Your task to perform on an android device: clear history in the chrome app Image 0: 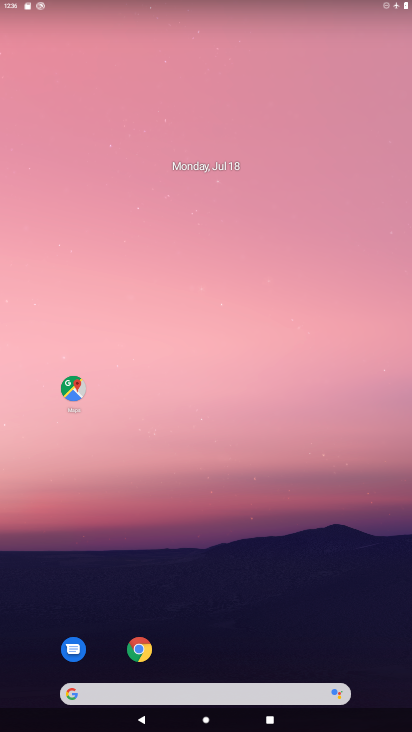
Step 0: click (125, 651)
Your task to perform on an android device: clear history in the chrome app Image 1: 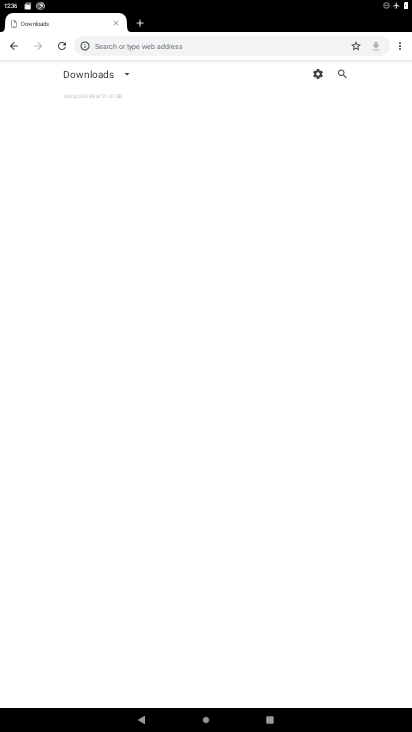
Step 1: click (396, 56)
Your task to perform on an android device: clear history in the chrome app Image 2: 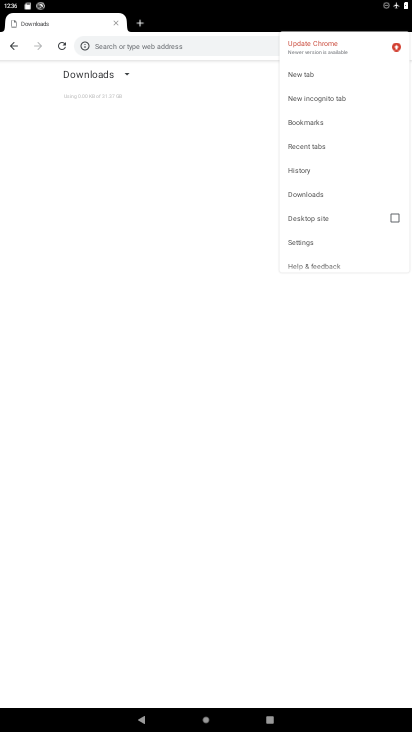
Step 2: click (306, 177)
Your task to perform on an android device: clear history in the chrome app Image 3: 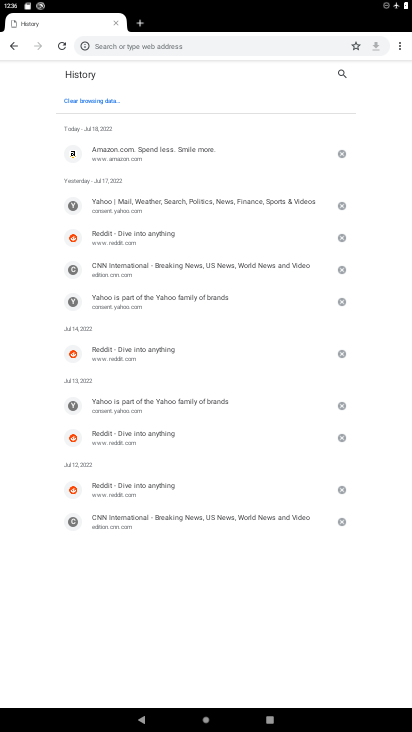
Step 3: click (109, 96)
Your task to perform on an android device: clear history in the chrome app Image 4: 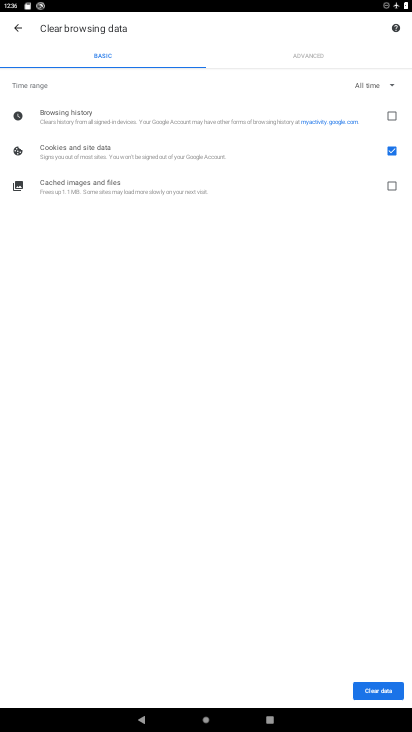
Step 4: click (394, 116)
Your task to perform on an android device: clear history in the chrome app Image 5: 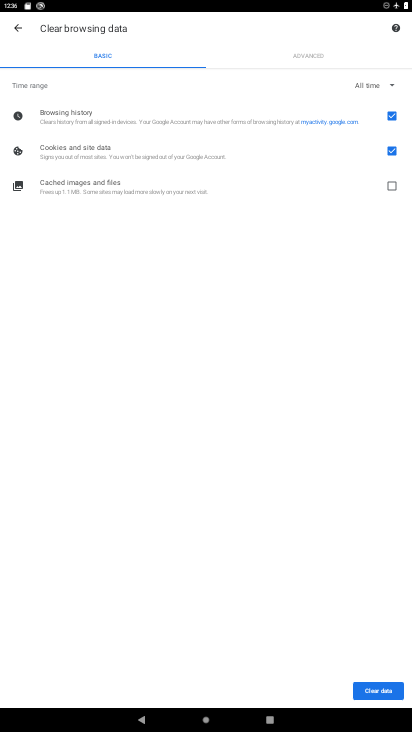
Step 5: click (392, 147)
Your task to perform on an android device: clear history in the chrome app Image 6: 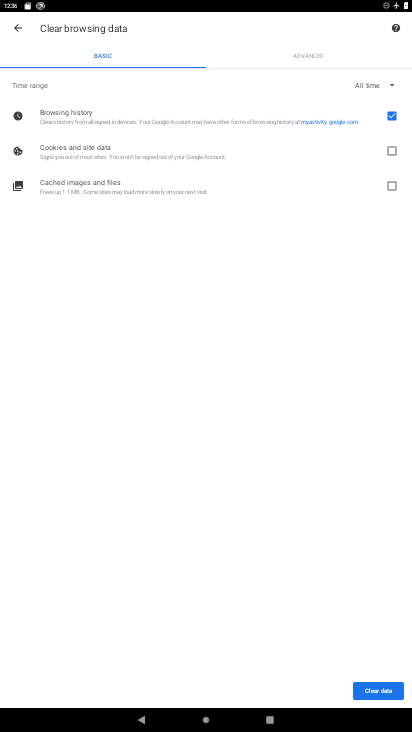
Step 6: click (382, 697)
Your task to perform on an android device: clear history in the chrome app Image 7: 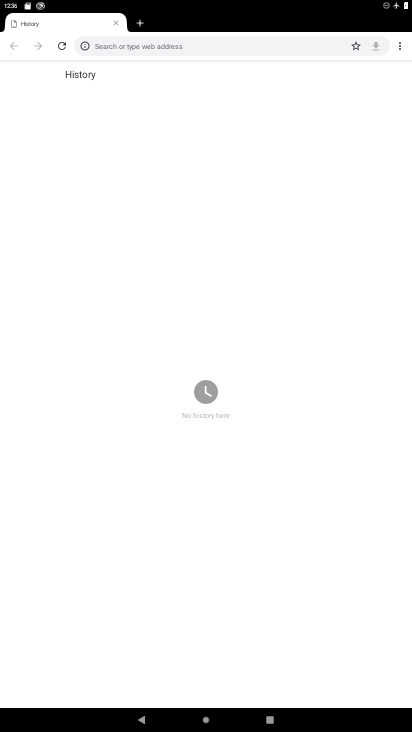
Step 7: task complete